Your task to perform on an android device: toggle pop-ups in chrome Image 0: 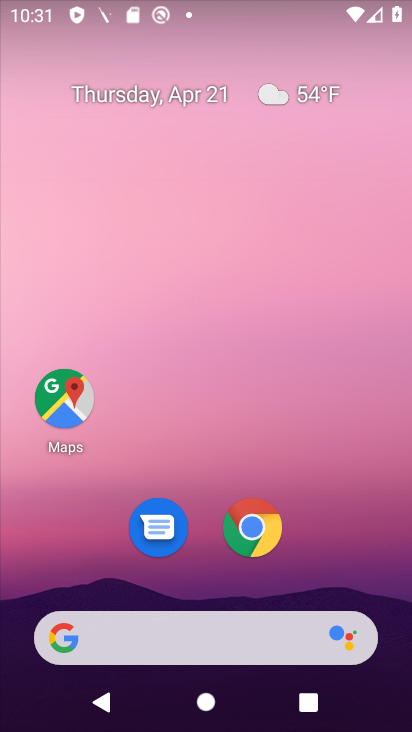
Step 0: click (268, 528)
Your task to perform on an android device: toggle pop-ups in chrome Image 1: 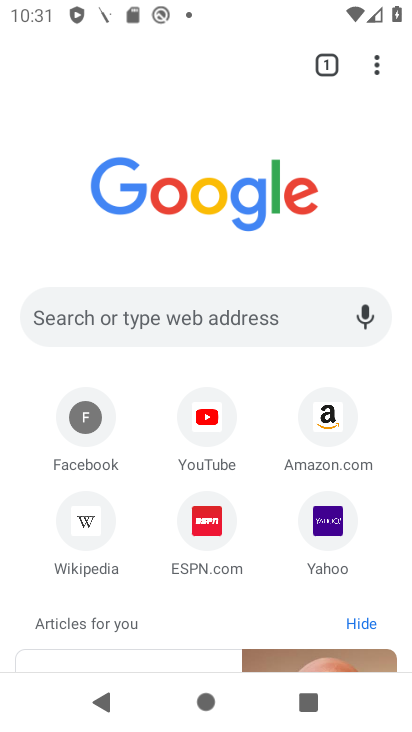
Step 1: drag from (380, 66) to (216, 543)
Your task to perform on an android device: toggle pop-ups in chrome Image 2: 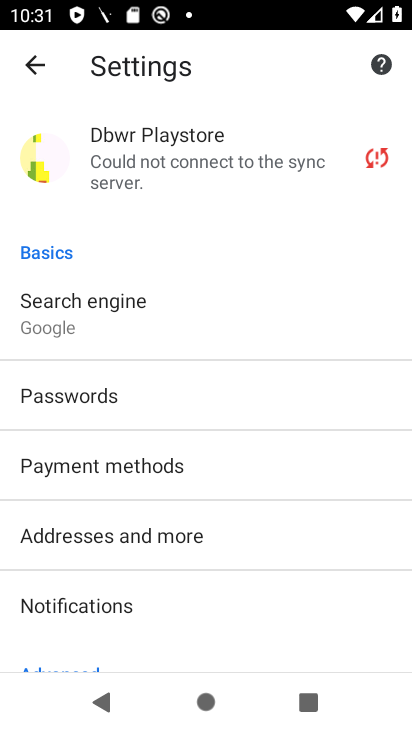
Step 2: drag from (150, 594) to (153, 296)
Your task to perform on an android device: toggle pop-ups in chrome Image 3: 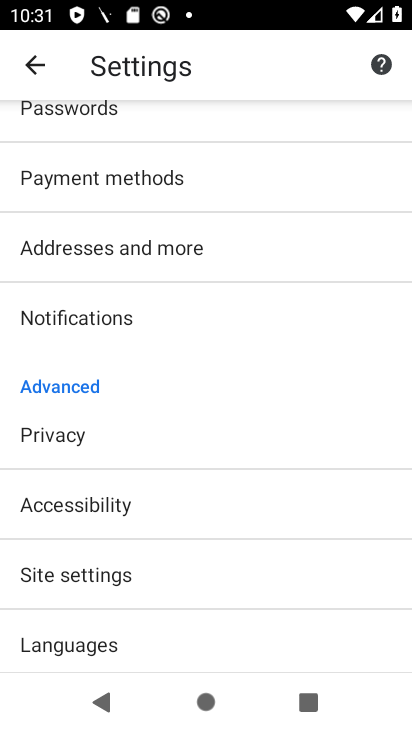
Step 3: click (100, 578)
Your task to perform on an android device: toggle pop-ups in chrome Image 4: 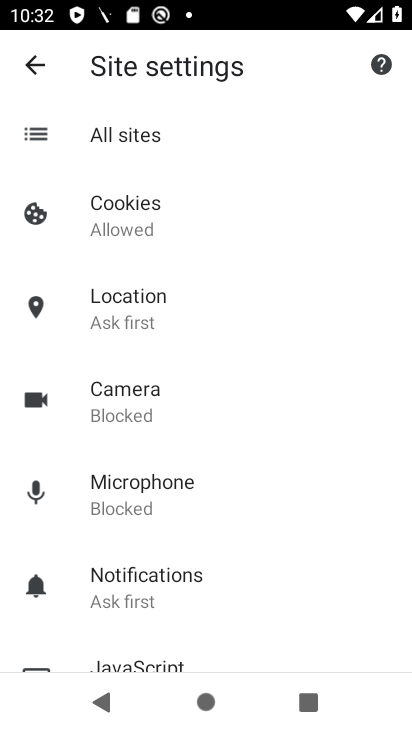
Step 4: drag from (179, 604) to (159, 261)
Your task to perform on an android device: toggle pop-ups in chrome Image 5: 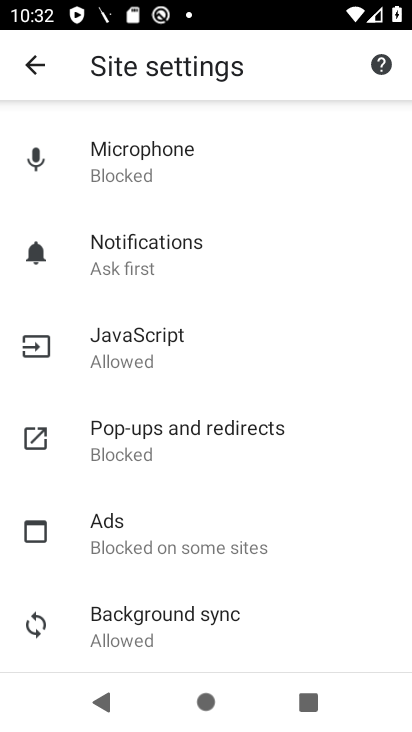
Step 5: click (193, 453)
Your task to perform on an android device: toggle pop-ups in chrome Image 6: 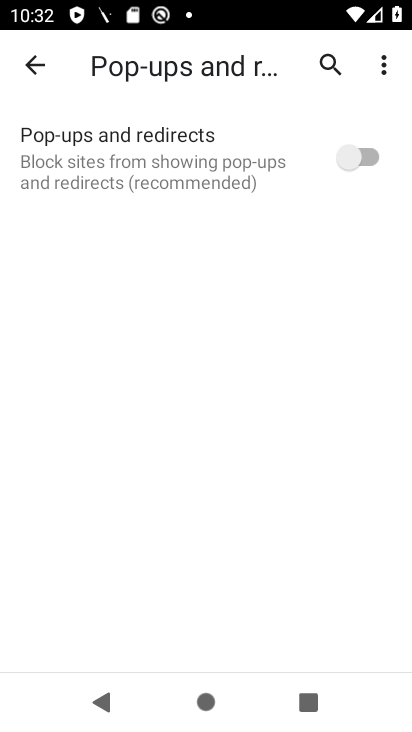
Step 6: click (364, 158)
Your task to perform on an android device: toggle pop-ups in chrome Image 7: 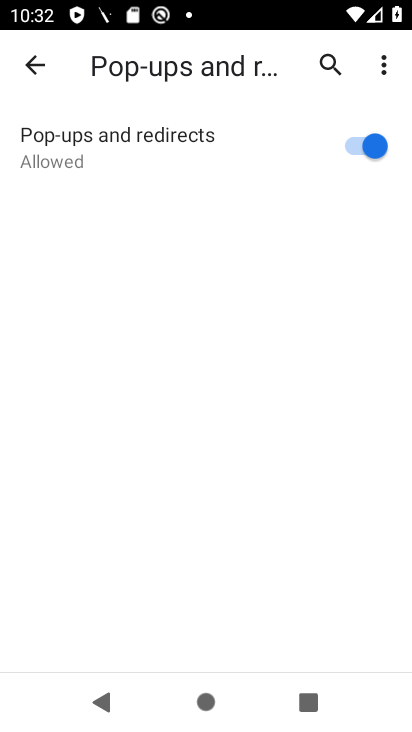
Step 7: task complete